Your task to perform on an android device: Search for the best selling vase on Crate & Barrel Image 0: 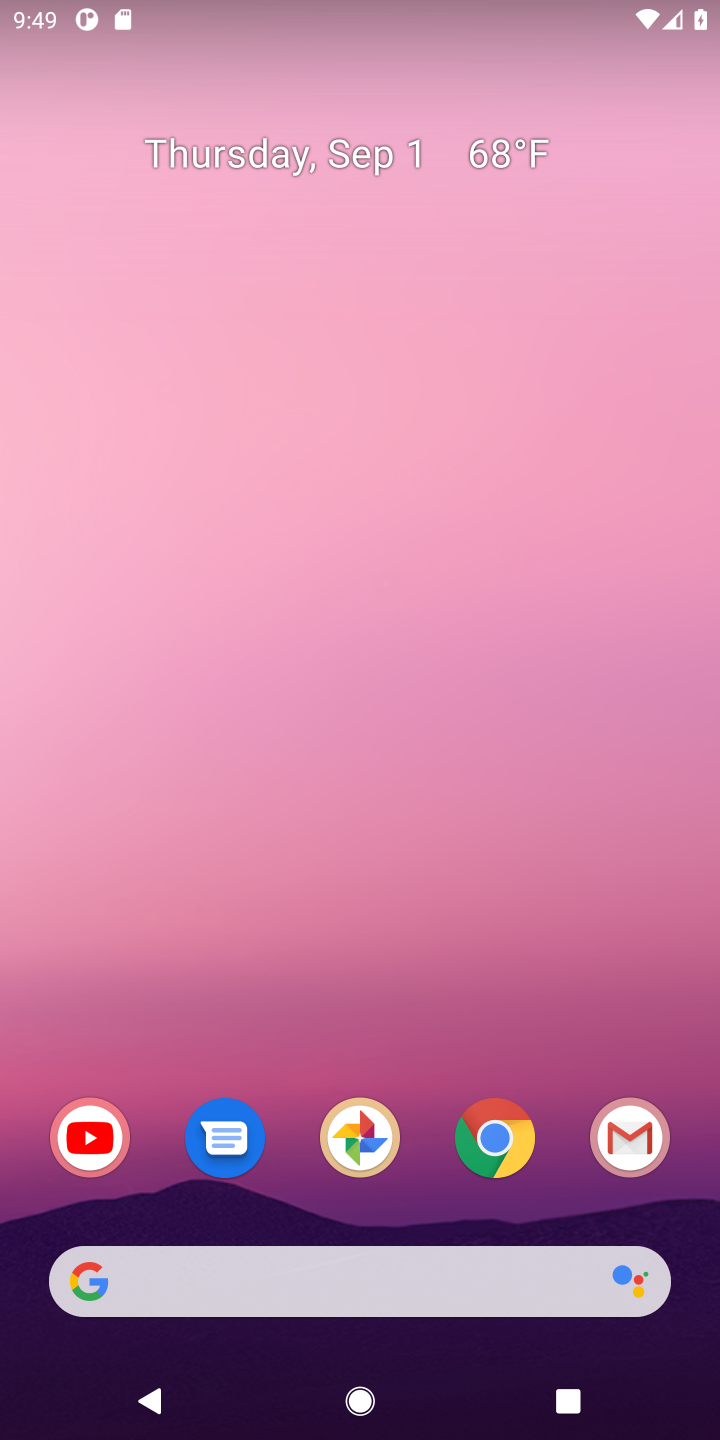
Step 0: click (185, 1292)
Your task to perform on an android device: Search for the best selling vase on Crate & Barrel Image 1: 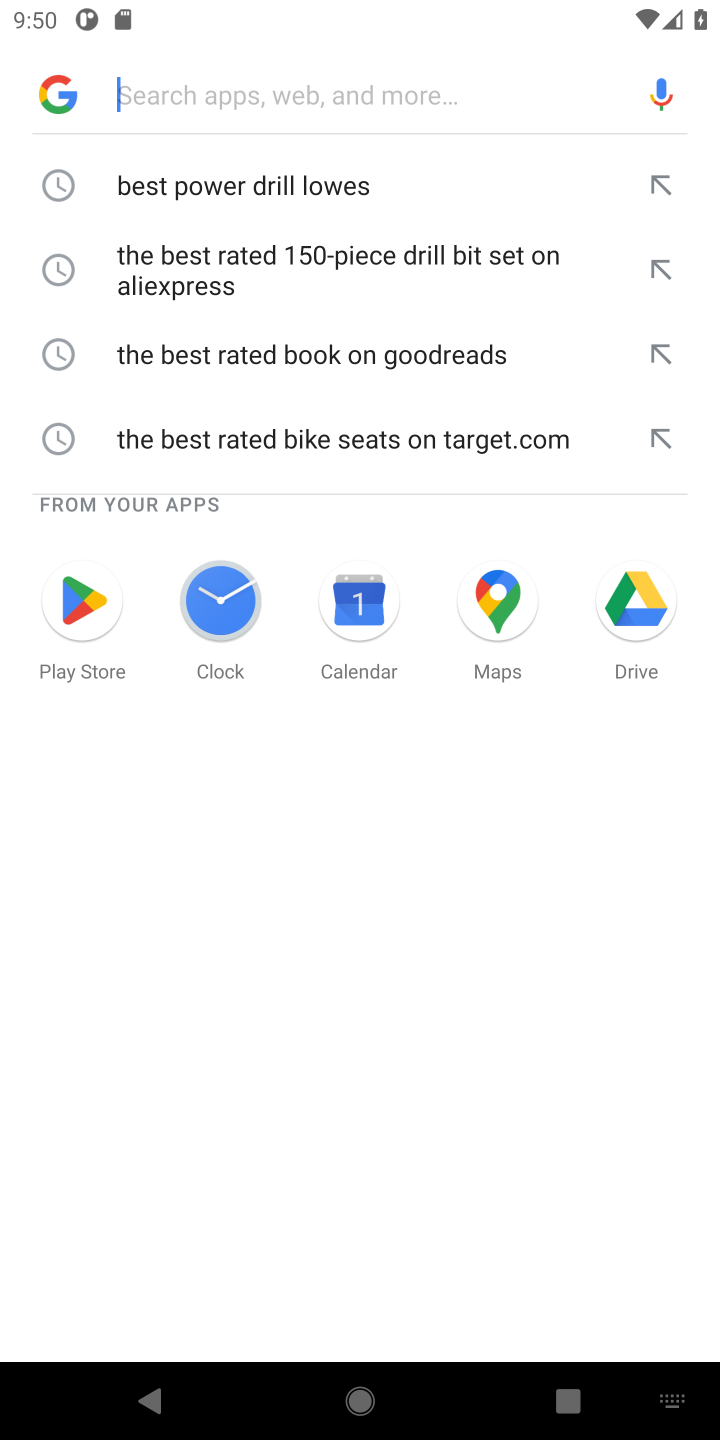
Step 1: click (316, 116)
Your task to perform on an android device: Search for the best selling vase on Crate & Barrel Image 2: 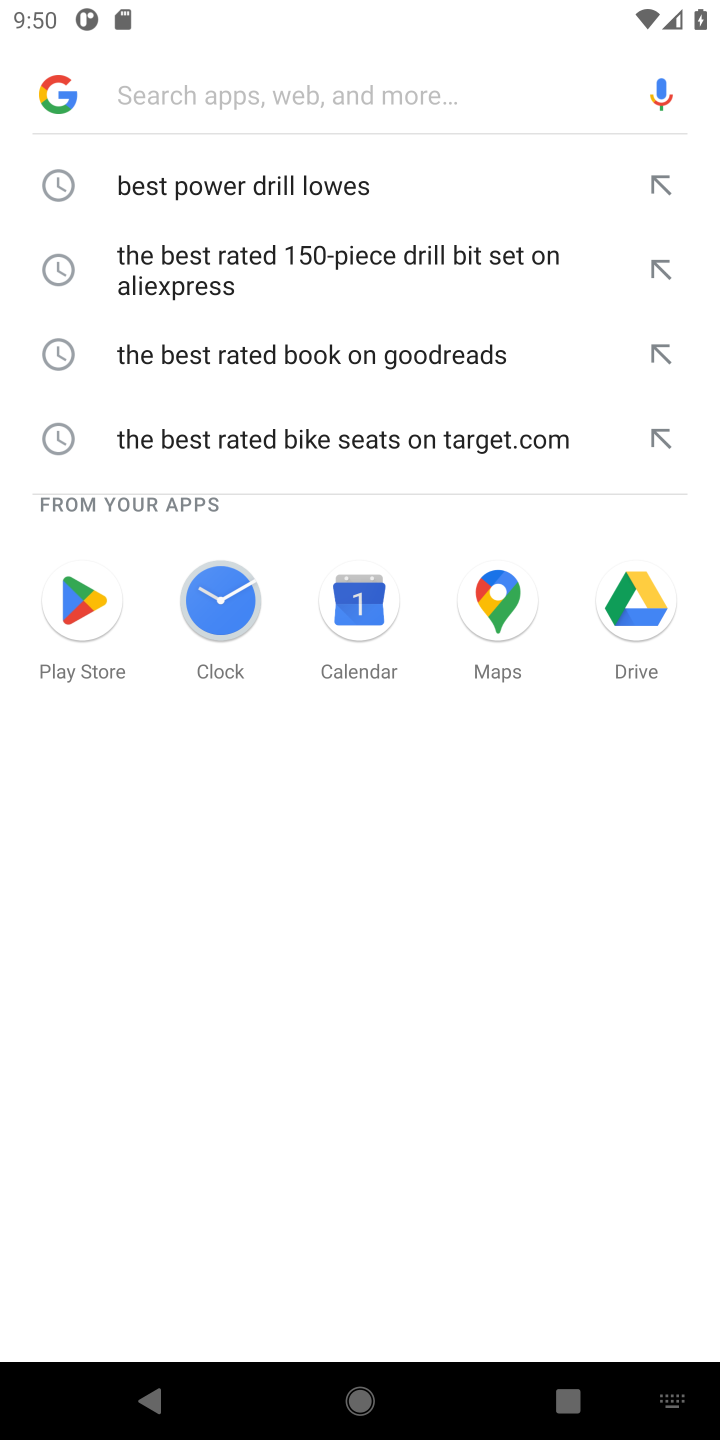
Step 2: click (289, 180)
Your task to perform on an android device: Search for the best selling vase on Crate & Barrel Image 3: 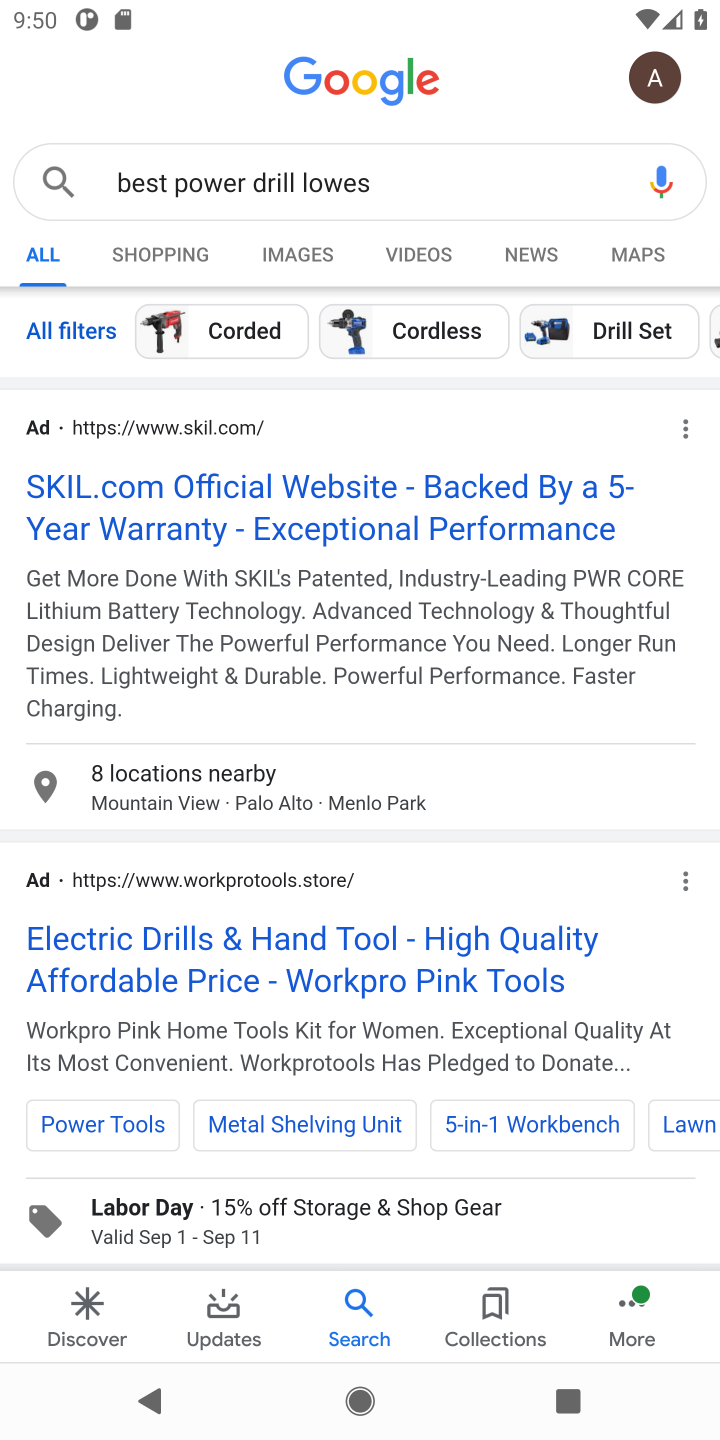
Step 3: click (295, 489)
Your task to perform on an android device: Search for the best selling vase on Crate & Barrel Image 4: 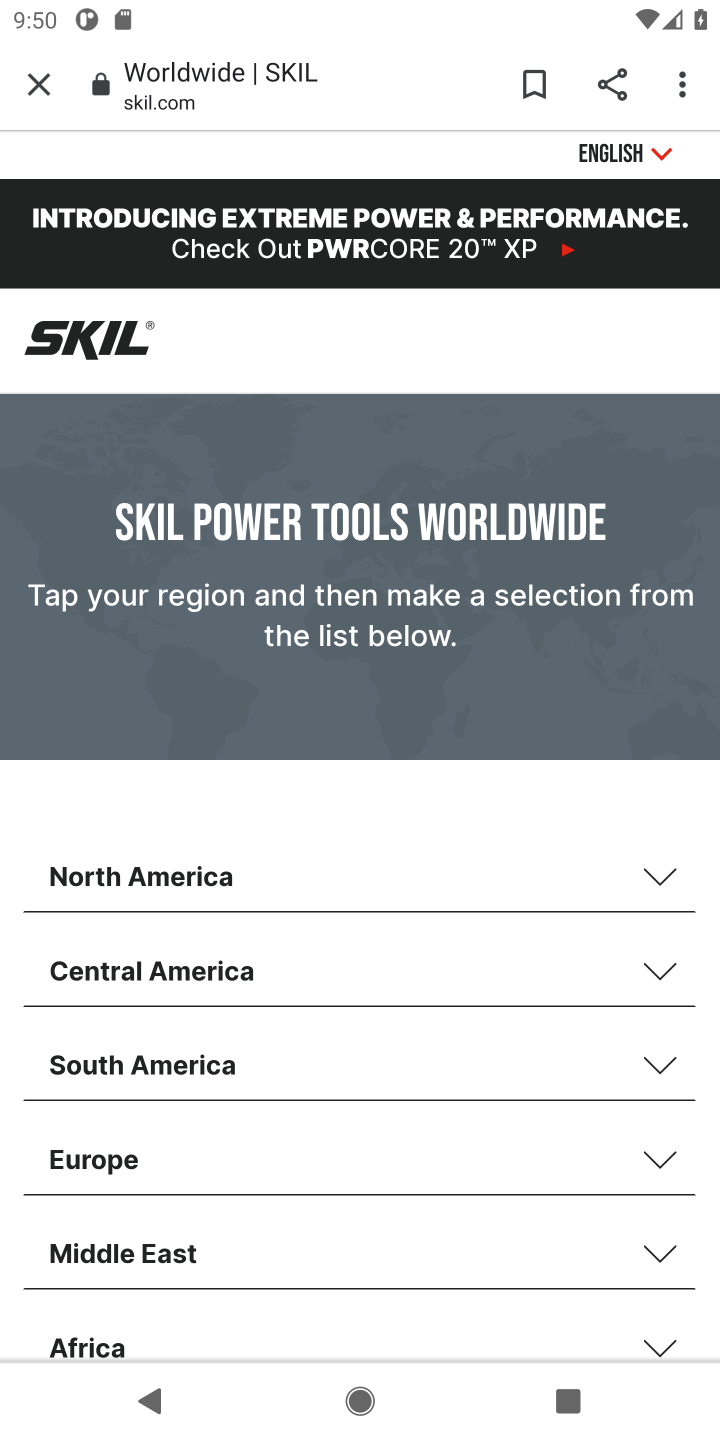
Step 4: task complete